Your task to perform on an android device: Open Maps and search for coffee Image 0: 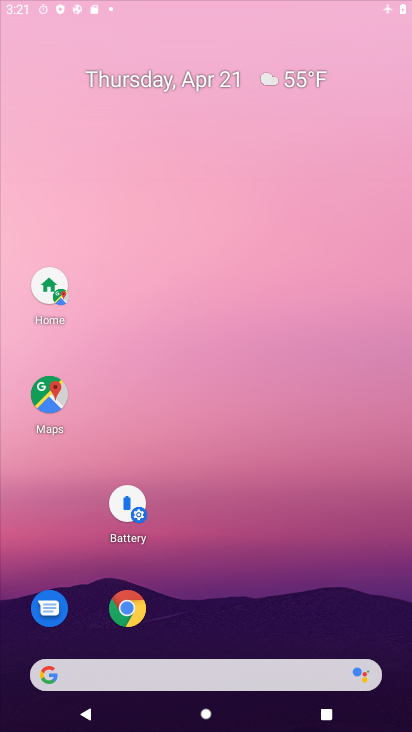
Step 0: drag from (328, 520) to (388, 136)
Your task to perform on an android device: Open Maps and search for coffee Image 1: 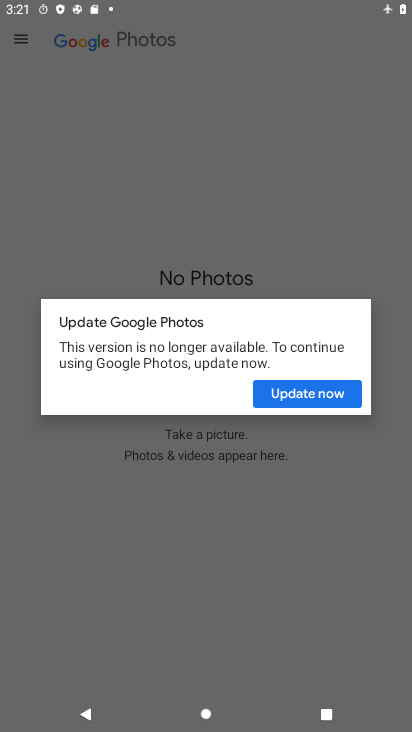
Step 1: press home button
Your task to perform on an android device: Open Maps and search for coffee Image 2: 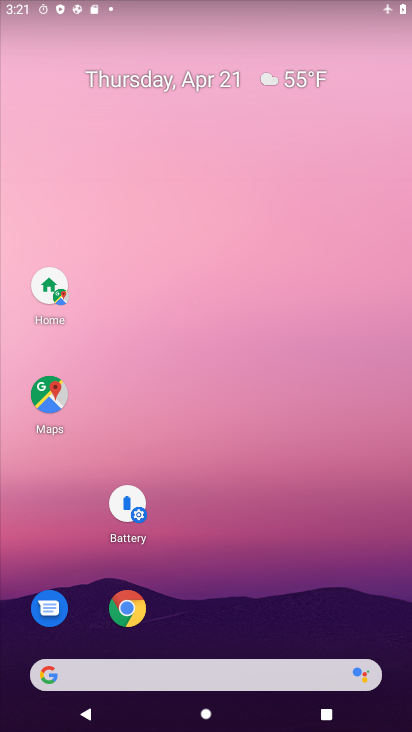
Step 2: click (40, 401)
Your task to perform on an android device: Open Maps and search for coffee Image 3: 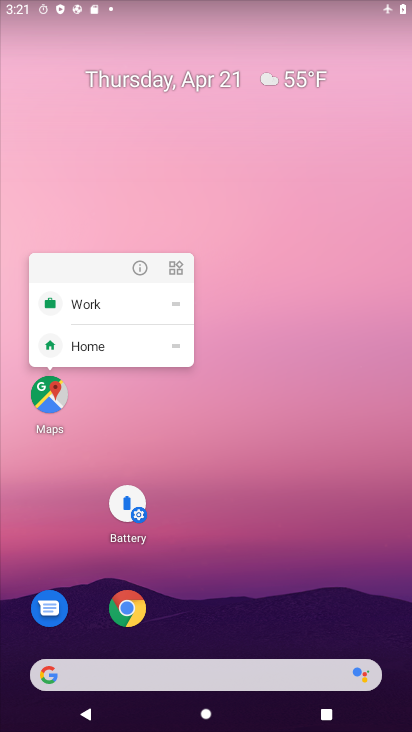
Step 3: click (40, 400)
Your task to perform on an android device: Open Maps and search for coffee Image 4: 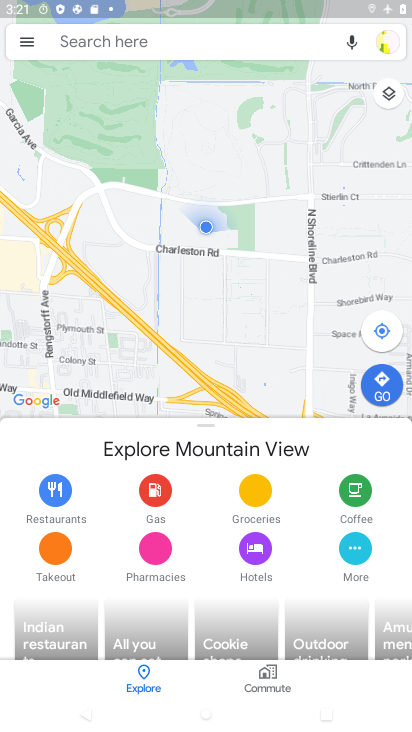
Step 4: click (137, 48)
Your task to perform on an android device: Open Maps and search for coffee Image 5: 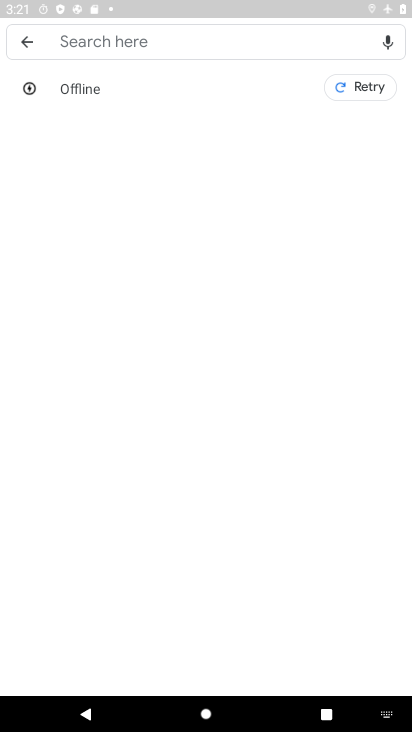
Step 5: type "coffee"
Your task to perform on an android device: Open Maps and search for coffee Image 6: 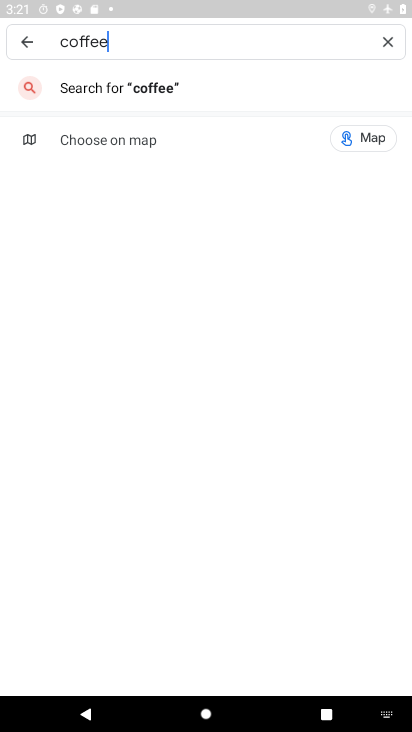
Step 6: click (133, 85)
Your task to perform on an android device: Open Maps and search for coffee Image 7: 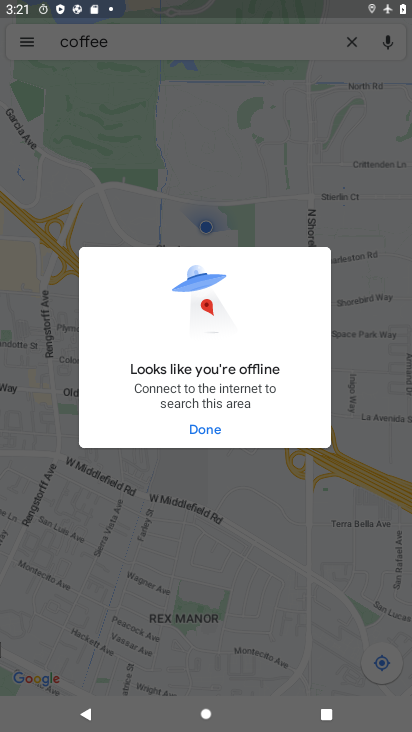
Step 7: task complete